Your task to perform on an android device: turn on notifications settings in the gmail app Image 0: 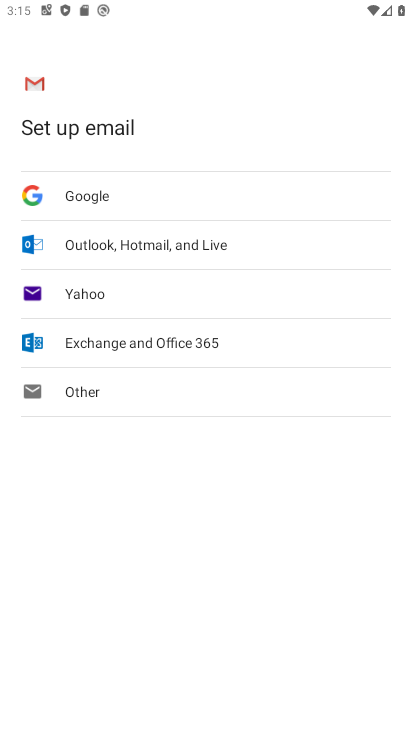
Step 0: press home button
Your task to perform on an android device: turn on notifications settings in the gmail app Image 1: 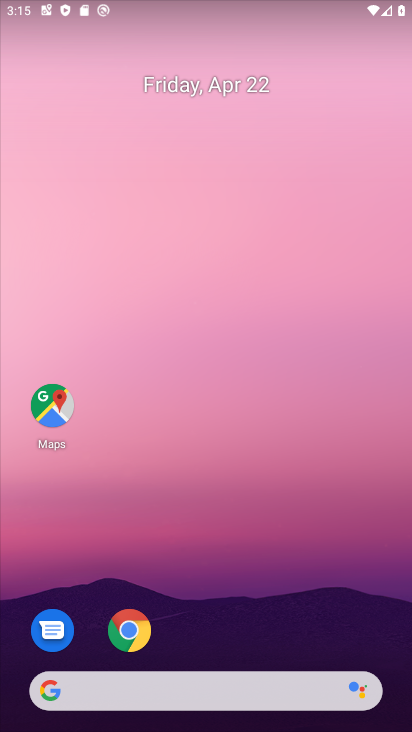
Step 1: drag from (236, 617) to (329, 132)
Your task to perform on an android device: turn on notifications settings in the gmail app Image 2: 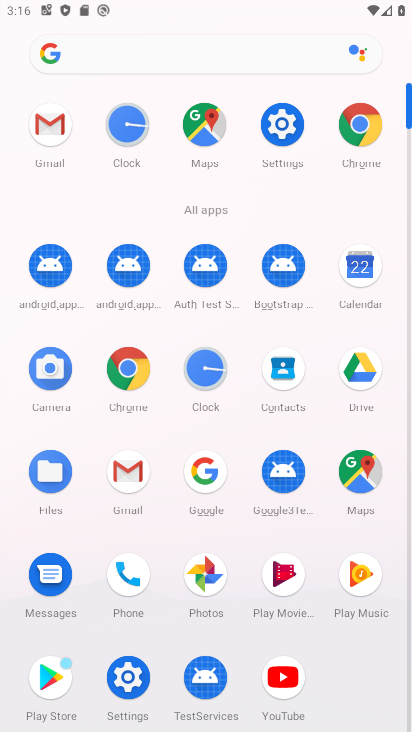
Step 2: click (151, 476)
Your task to perform on an android device: turn on notifications settings in the gmail app Image 3: 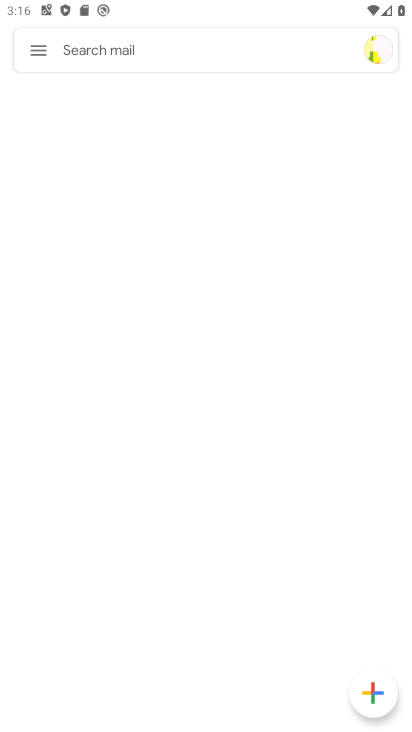
Step 3: click (34, 44)
Your task to perform on an android device: turn on notifications settings in the gmail app Image 4: 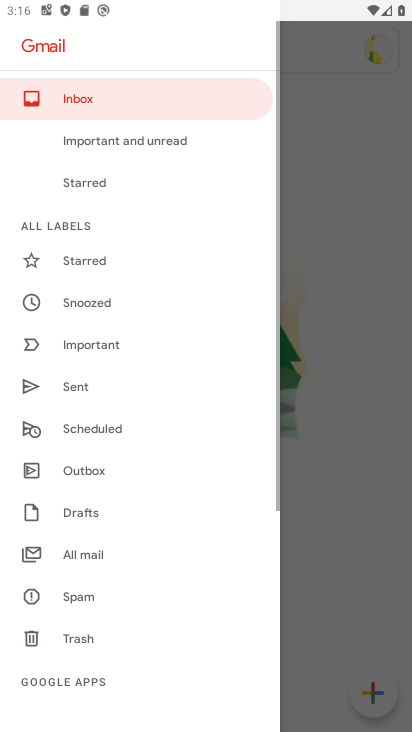
Step 4: drag from (78, 634) to (127, 223)
Your task to perform on an android device: turn on notifications settings in the gmail app Image 5: 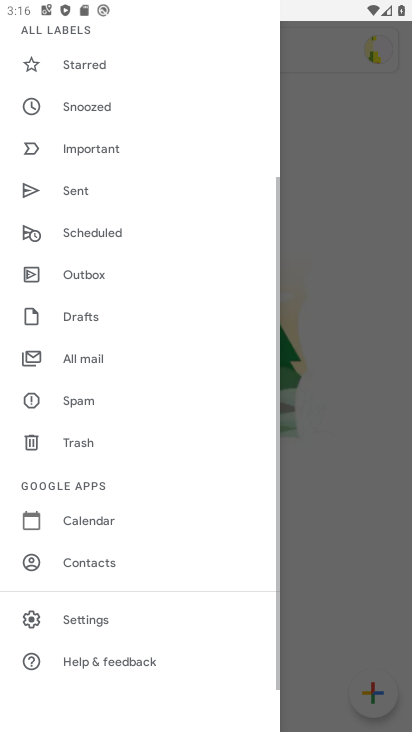
Step 5: click (94, 626)
Your task to perform on an android device: turn on notifications settings in the gmail app Image 6: 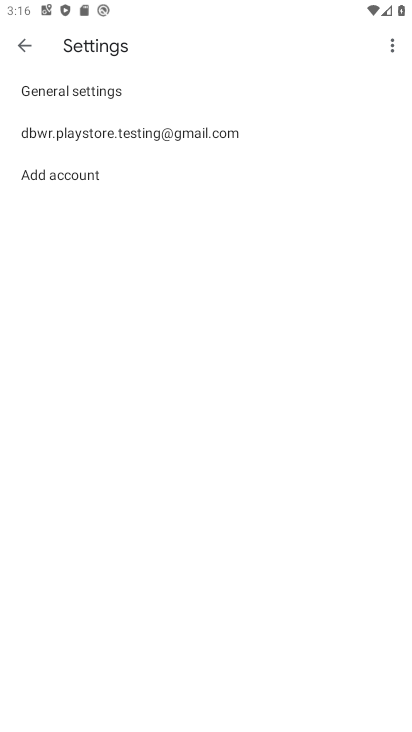
Step 6: click (92, 95)
Your task to perform on an android device: turn on notifications settings in the gmail app Image 7: 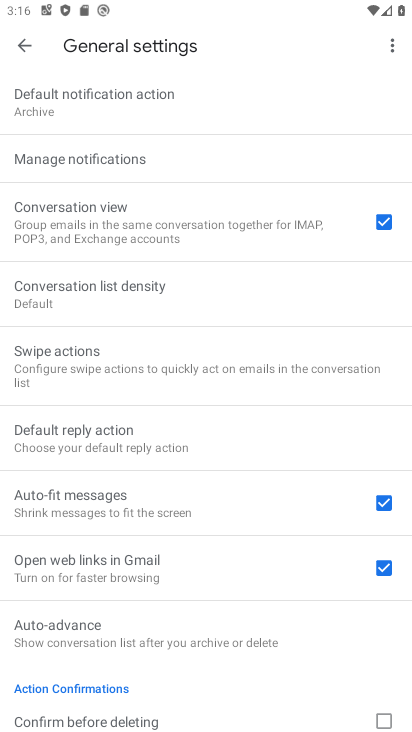
Step 7: click (103, 151)
Your task to perform on an android device: turn on notifications settings in the gmail app Image 8: 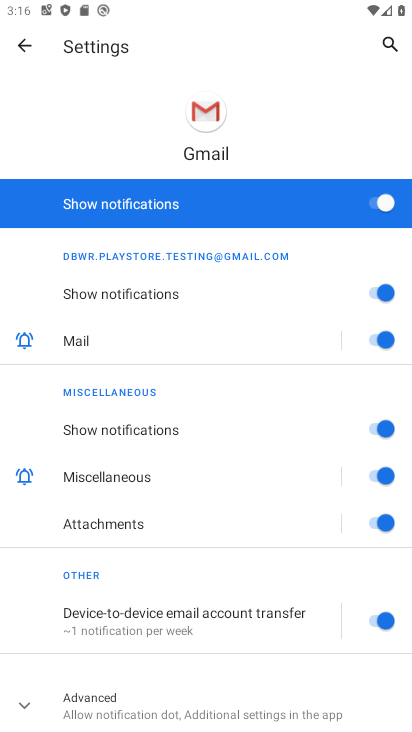
Step 8: task complete